Your task to perform on an android device: turn off picture-in-picture Image 0: 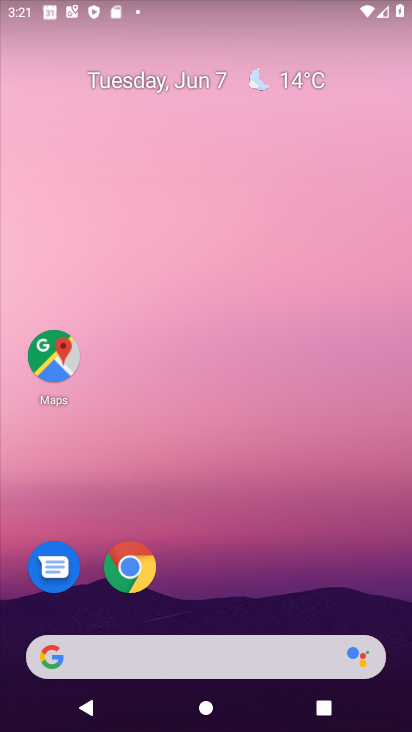
Step 0: click (130, 565)
Your task to perform on an android device: turn off picture-in-picture Image 1: 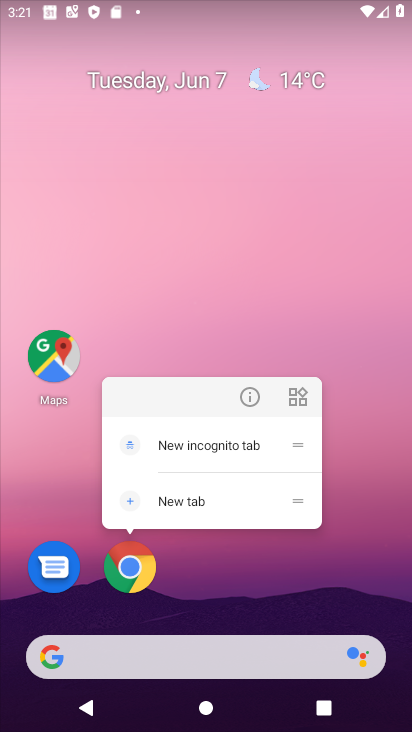
Step 1: click (239, 405)
Your task to perform on an android device: turn off picture-in-picture Image 2: 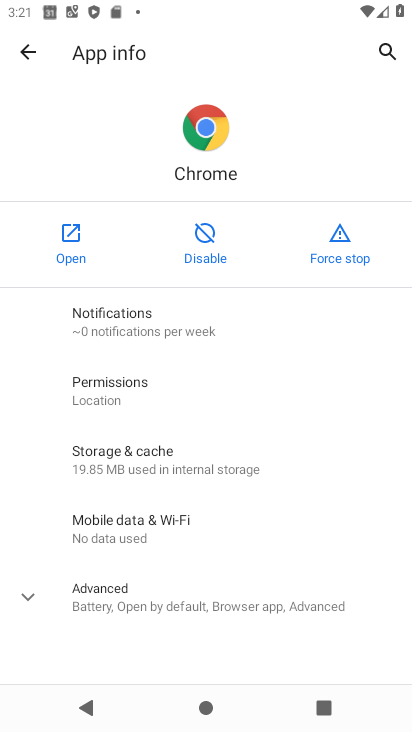
Step 2: drag from (237, 537) to (253, 237)
Your task to perform on an android device: turn off picture-in-picture Image 3: 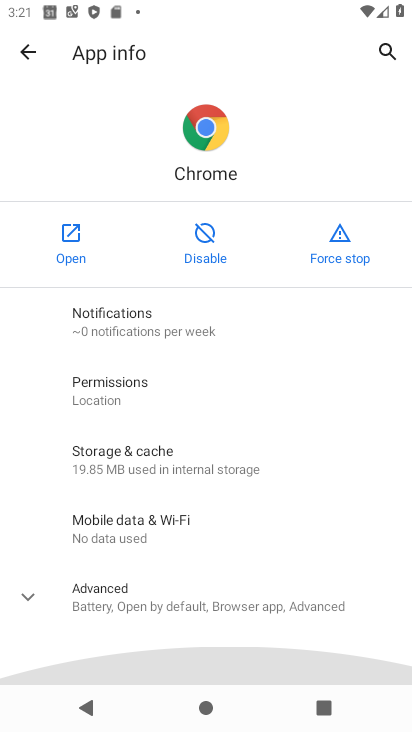
Step 3: drag from (251, 478) to (241, 312)
Your task to perform on an android device: turn off picture-in-picture Image 4: 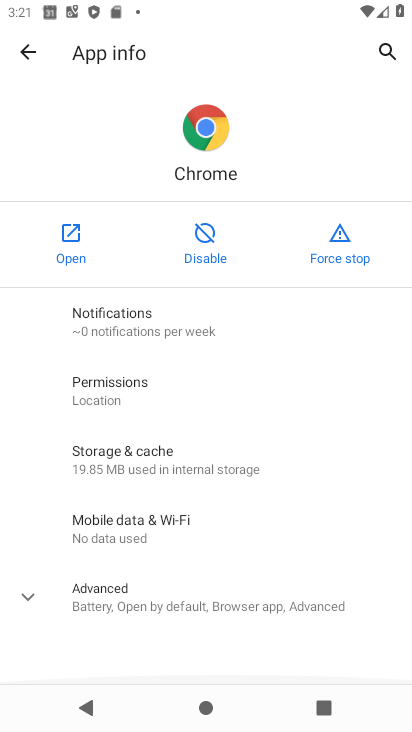
Step 4: click (148, 591)
Your task to perform on an android device: turn off picture-in-picture Image 5: 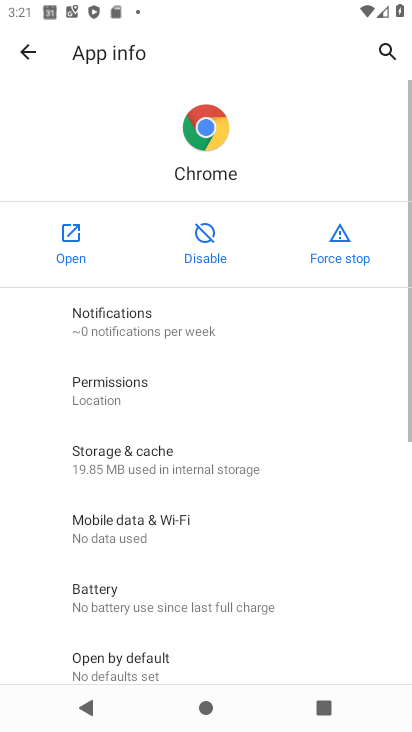
Step 5: drag from (173, 594) to (173, 289)
Your task to perform on an android device: turn off picture-in-picture Image 6: 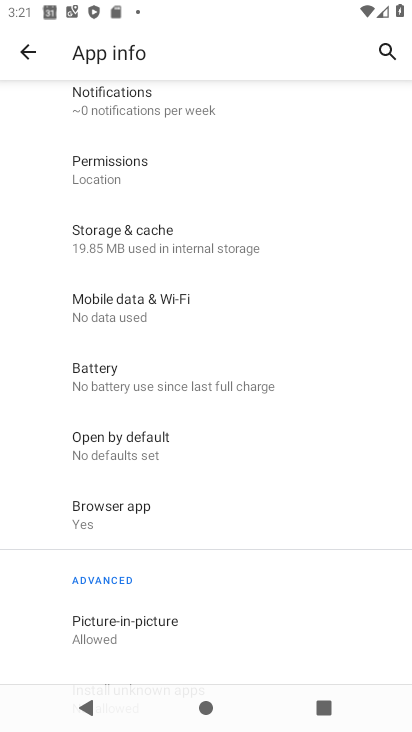
Step 6: drag from (187, 571) to (192, 166)
Your task to perform on an android device: turn off picture-in-picture Image 7: 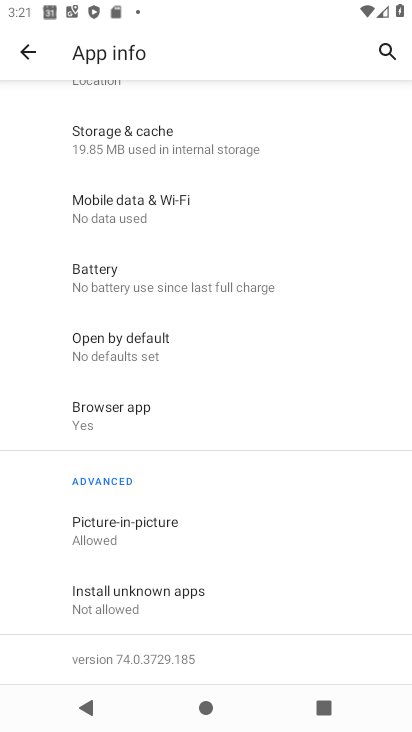
Step 7: click (176, 508)
Your task to perform on an android device: turn off picture-in-picture Image 8: 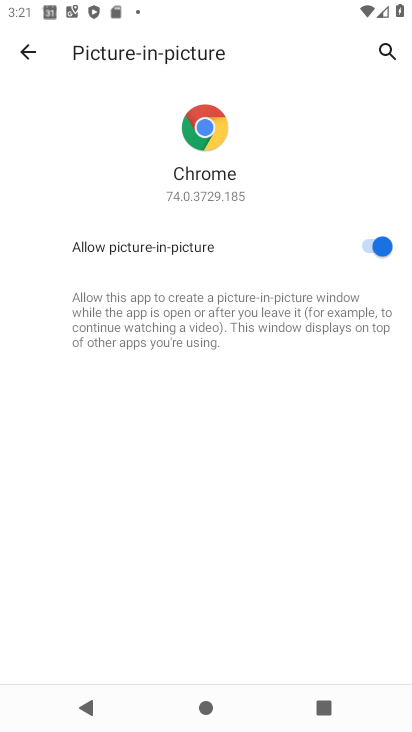
Step 8: click (361, 238)
Your task to perform on an android device: turn off picture-in-picture Image 9: 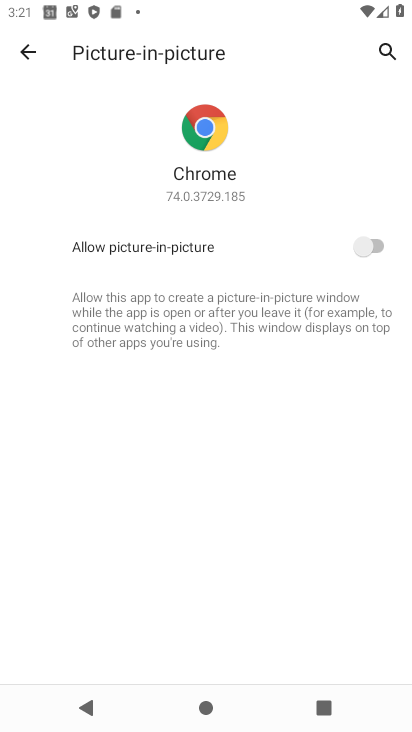
Step 9: task complete